Your task to perform on an android device: change notification settings in the gmail app Image 0: 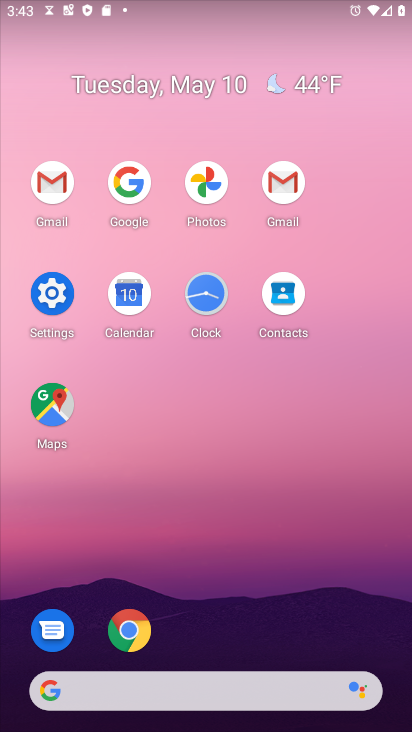
Step 0: click (280, 174)
Your task to perform on an android device: change notification settings in the gmail app Image 1: 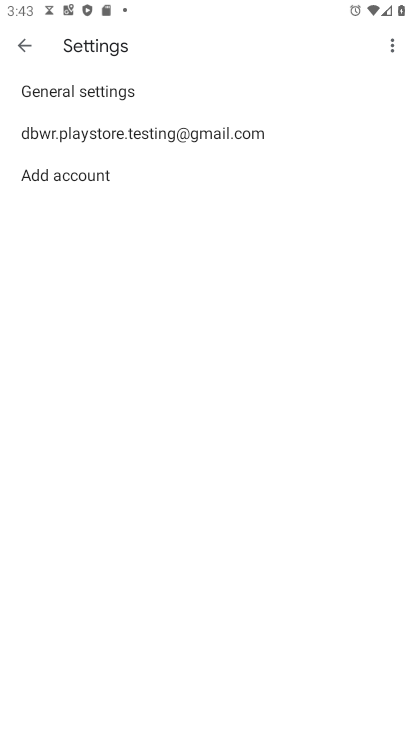
Step 1: click (60, 121)
Your task to perform on an android device: change notification settings in the gmail app Image 2: 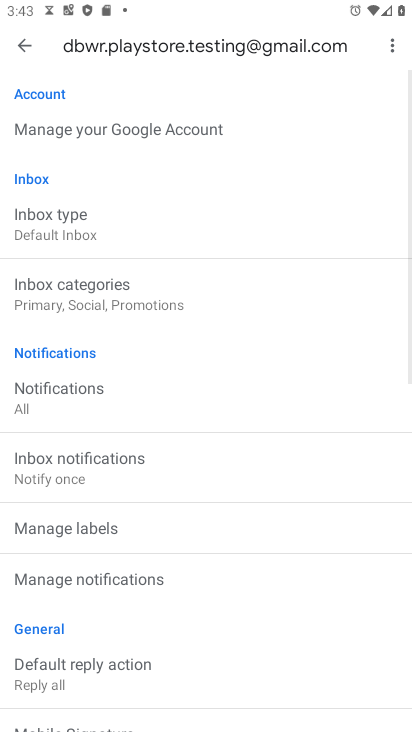
Step 2: click (136, 398)
Your task to perform on an android device: change notification settings in the gmail app Image 3: 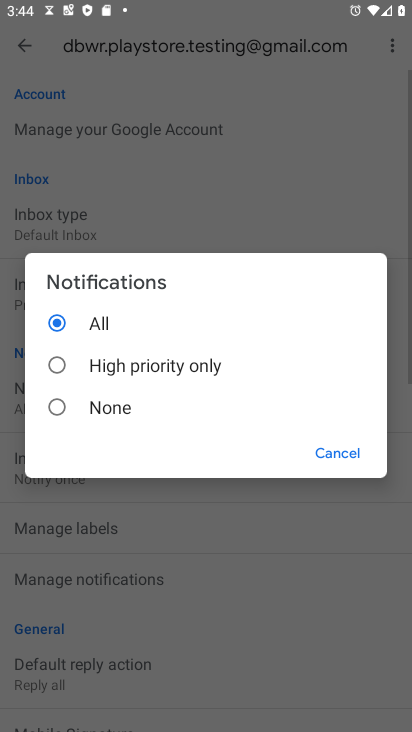
Step 3: click (68, 357)
Your task to perform on an android device: change notification settings in the gmail app Image 4: 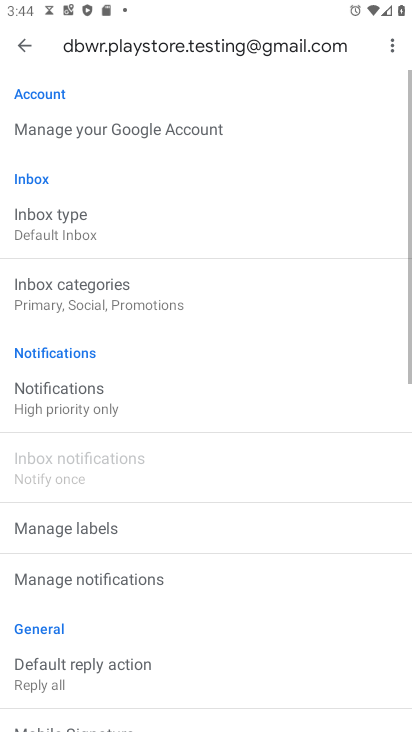
Step 4: task complete